Your task to perform on an android device: Open maps Image 0: 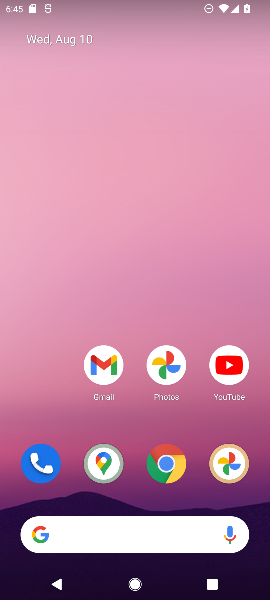
Step 0: click (104, 459)
Your task to perform on an android device: Open maps Image 1: 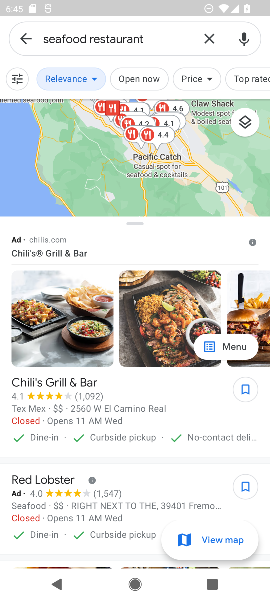
Step 1: click (25, 38)
Your task to perform on an android device: Open maps Image 2: 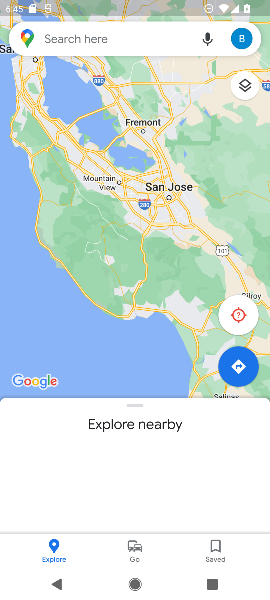
Step 2: task complete